Your task to perform on an android device: set default search engine in the chrome app Image 0: 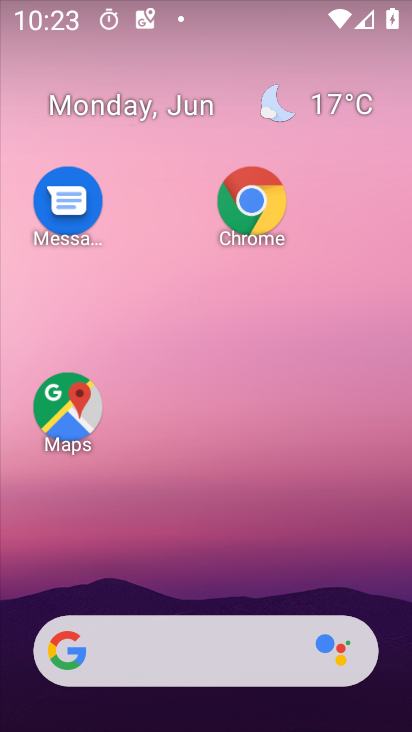
Step 0: click (265, 220)
Your task to perform on an android device: set default search engine in the chrome app Image 1: 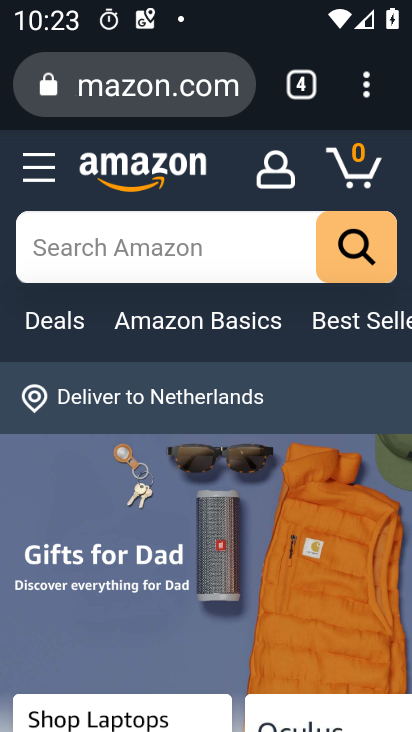
Step 1: click (368, 93)
Your task to perform on an android device: set default search engine in the chrome app Image 2: 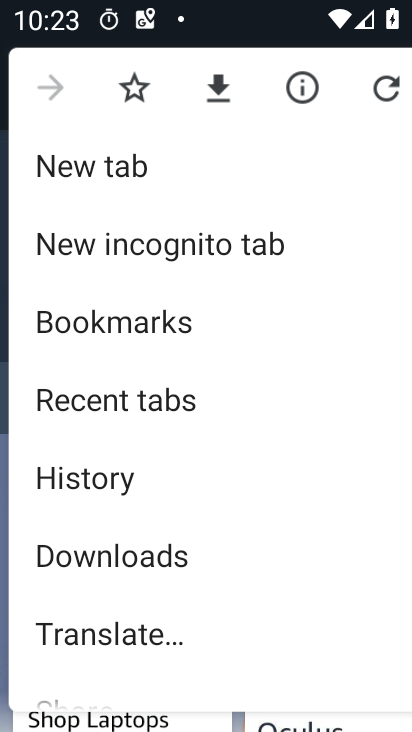
Step 2: drag from (128, 571) to (127, 278)
Your task to perform on an android device: set default search engine in the chrome app Image 3: 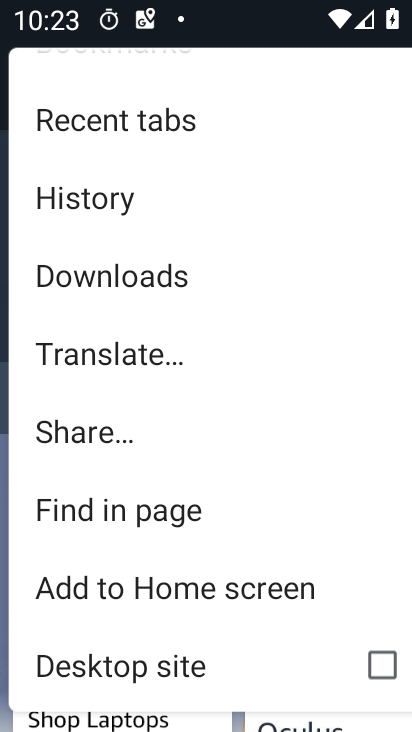
Step 3: drag from (160, 601) to (160, 299)
Your task to perform on an android device: set default search engine in the chrome app Image 4: 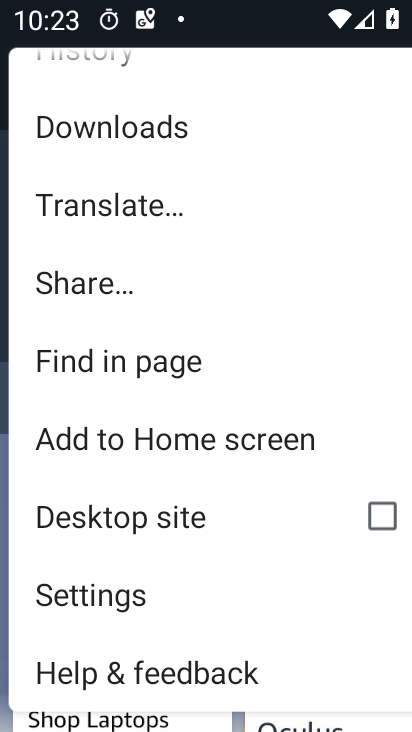
Step 4: click (95, 571)
Your task to perform on an android device: set default search engine in the chrome app Image 5: 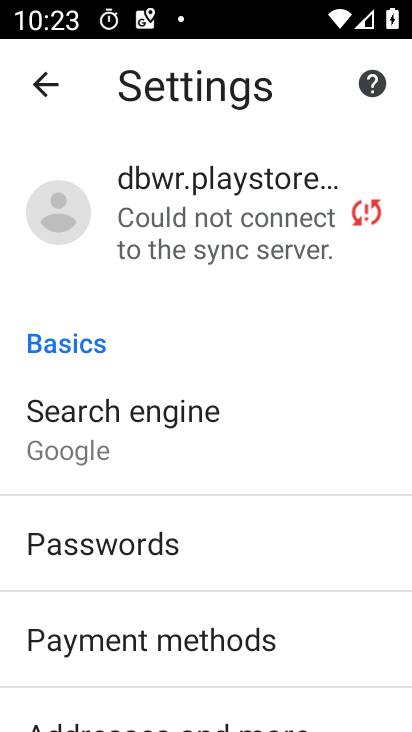
Step 5: drag from (95, 571) to (102, 423)
Your task to perform on an android device: set default search engine in the chrome app Image 6: 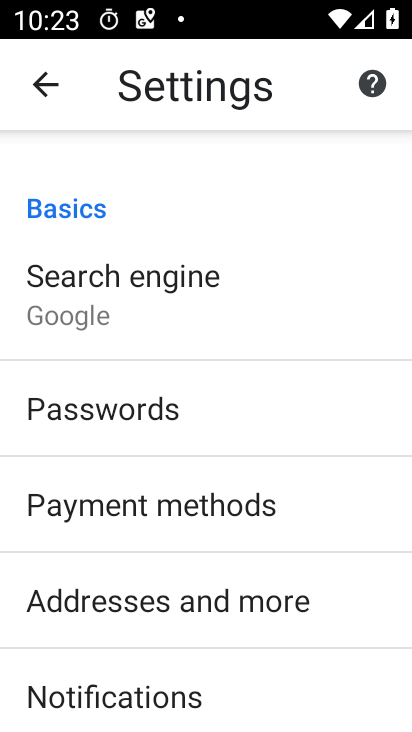
Step 6: click (123, 319)
Your task to perform on an android device: set default search engine in the chrome app Image 7: 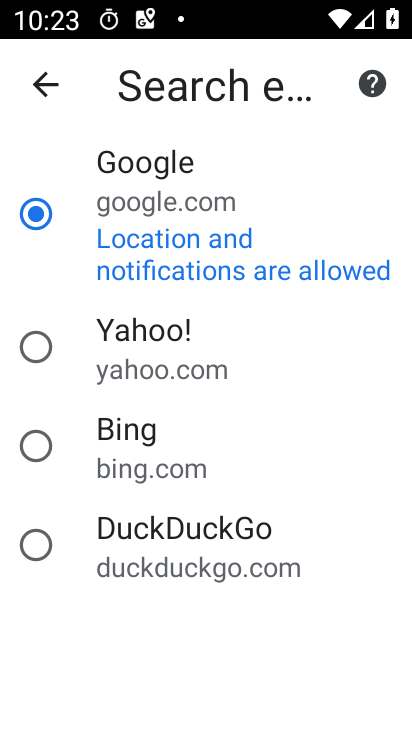
Step 7: click (45, 211)
Your task to perform on an android device: set default search engine in the chrome app Image 8: 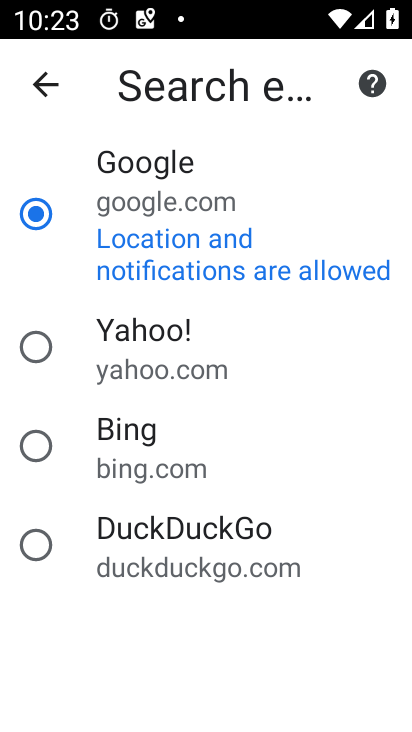
Step 8: task complete